Your task to perform on an android device: Open the calendar app, open the side menu, and click the "Day" option Image 0: 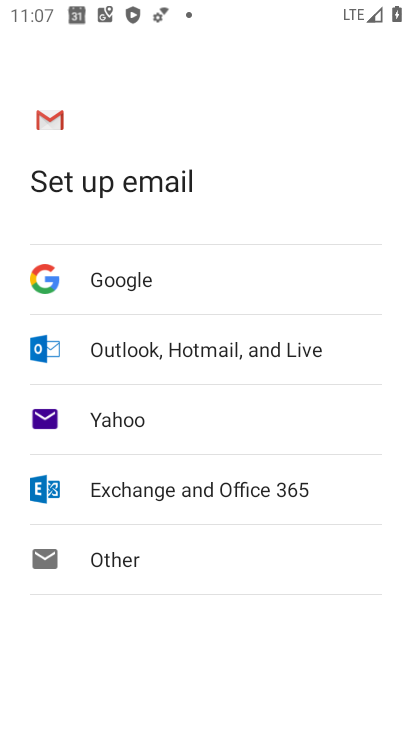
Step 0: press home button
Your task to perform on an android device: Open the calendar app, open the side menu, and click the "Day" option Image 1: 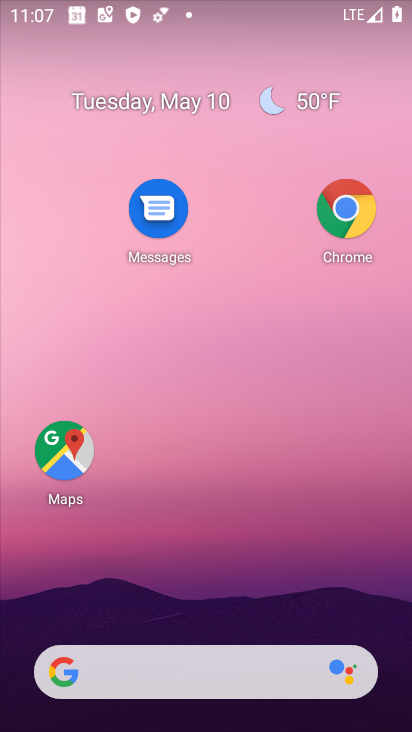
Step 1: drag from (165, 641) to (208, 1)
Your task to perform on an android device: Open the calendar app, open the side menu, and click the "Day" option Image 2: 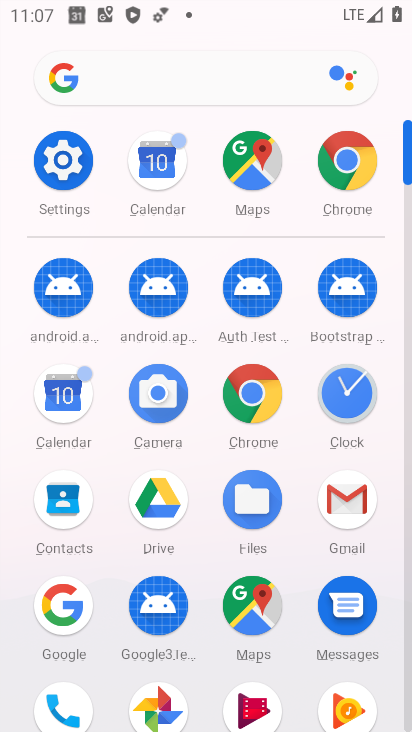
Step 2: click (40, 423)
Your task to perform on an android device: Open the calendar app, open the side menu, and click the "Day" option Image 3: 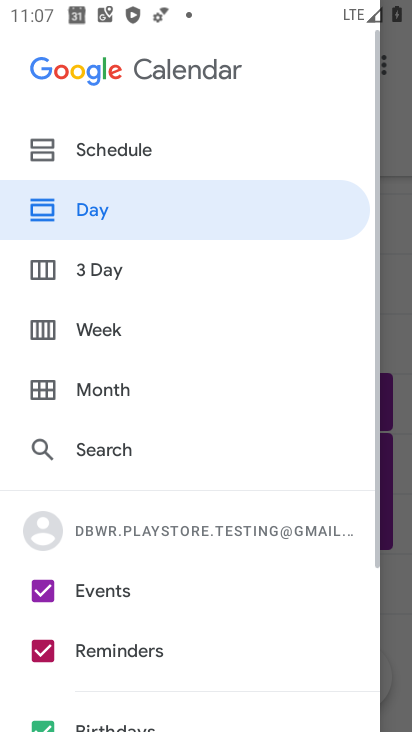
Step 3: click (84, 221)
Your task to perform on an android device: Open the calendar app, open the side menu, and click the "Day" option Image 4: 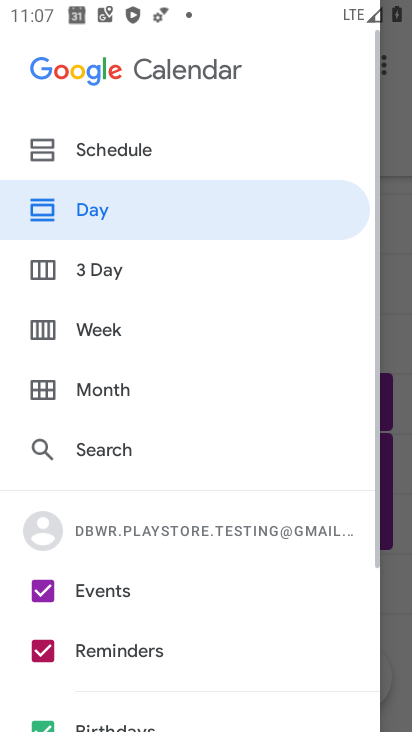
Step 4: click (88, 219)
Your task to perform on an android device: Open the calendar app, open the side menu, and click the "Day" option Image 5: 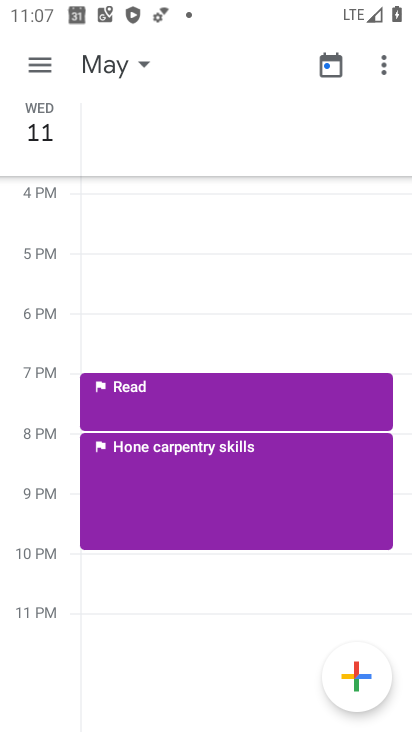
Step 5: click (21, 67)
Your task to perform on an android device: Open the calendar app, open the side menu, and click the "Day" option Image 6: 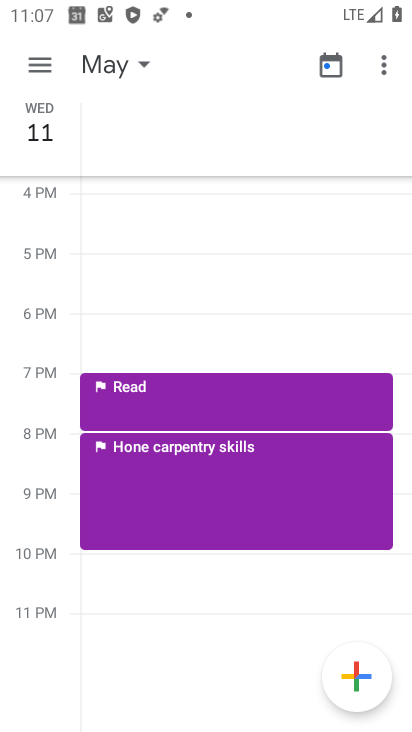
Step 6: click (39, 58)
Your task to perform on an android device: Open the calendar app, open the side menu, and click the "Day" option Image 7: 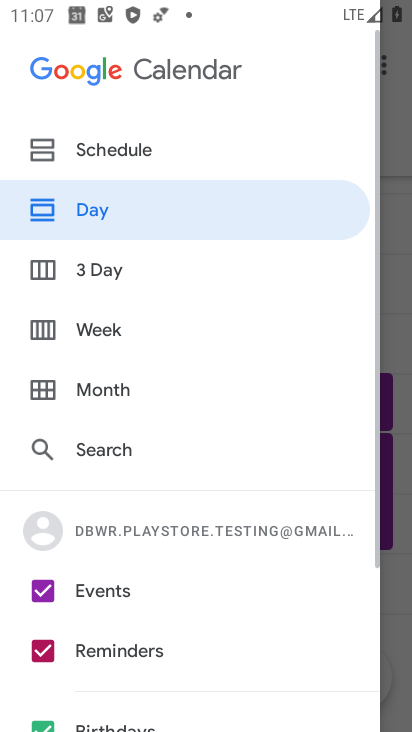
Step 7: click (94, 204)
Your task to perform on an android device: Open the calendar app, open the side menu, and click the "Day" option Image 8: 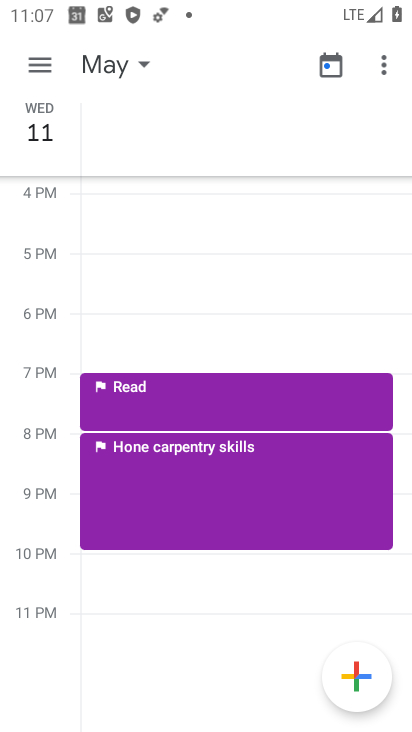
Step 8: task complete